Your task to perform on an android device: open a new tab in the chrome app Image 0: 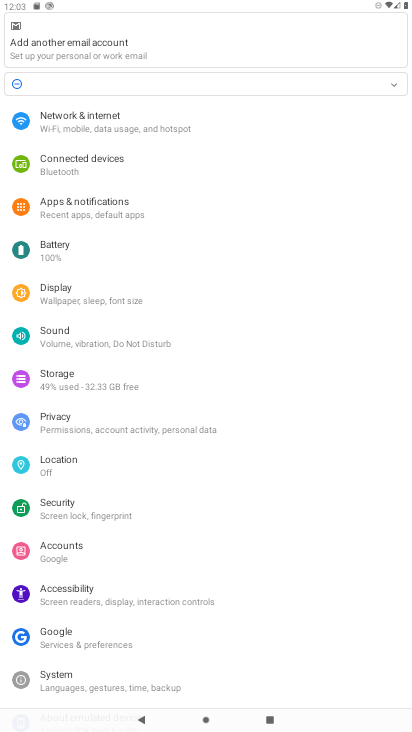
Step 0: press home button
Your task to perform on an android device: open a new tab in the chrome app Image 1: 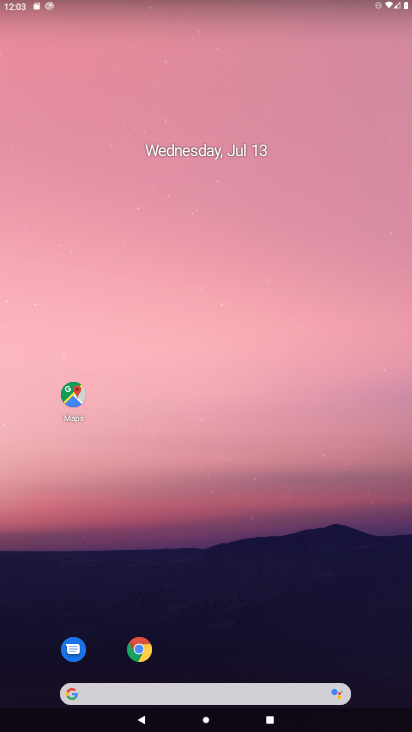
Step 1: click (137, 650)
Your task to perform on an android device: open a new tab in the chrome app Image 2: 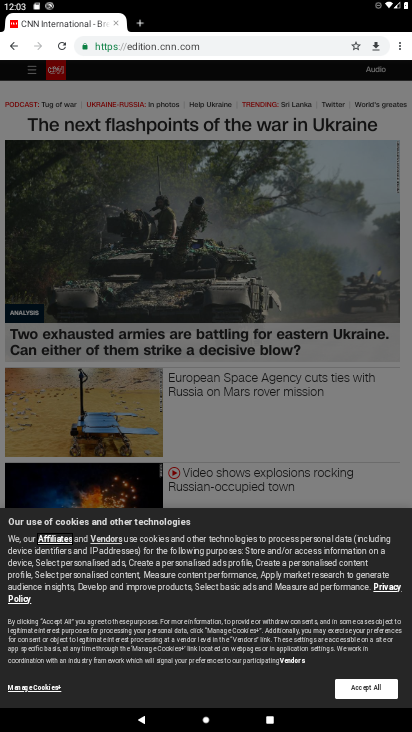
Step 2: click (401, 47)
Your task to perform on an android device: open a new tab in the chrome app Image 3: 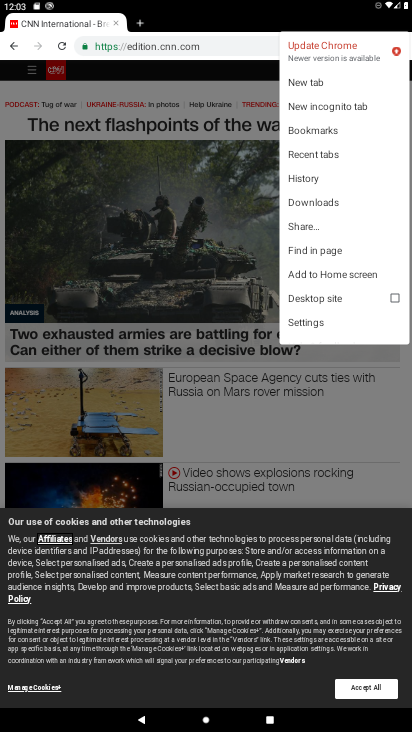
Step 3: click (298, 74)
Your task to perform on an android device: open a new tab in the chrome app Image 4: 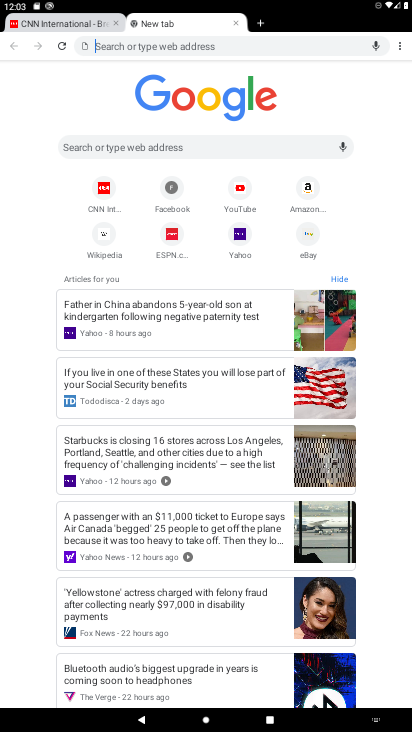
Step 4: task complete